Your task to perform on an android device: change the clock display to digital Image 0: 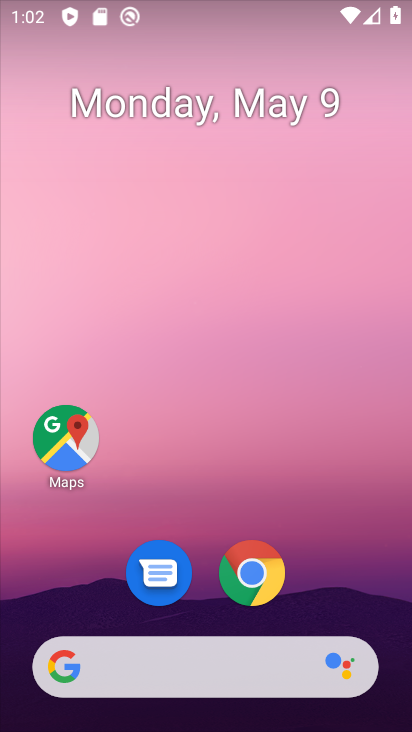
Step 0: click (162, 142)
Your task to perform on an android device: change the clock display to digital Image 1: 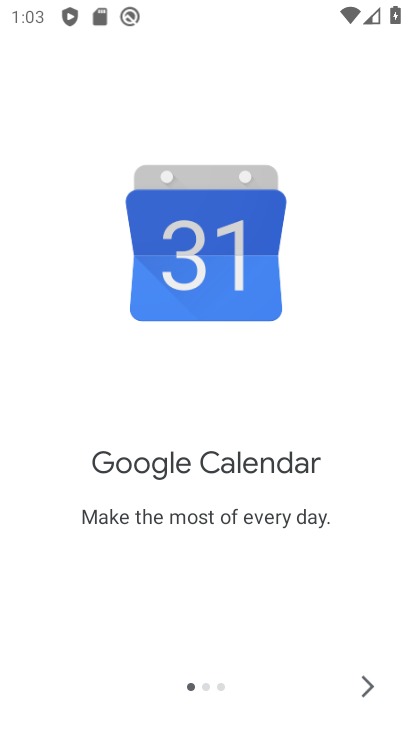
Step 1: click (376, 674)
Your task to perform on an android device: change the clock display to digital Image 2: 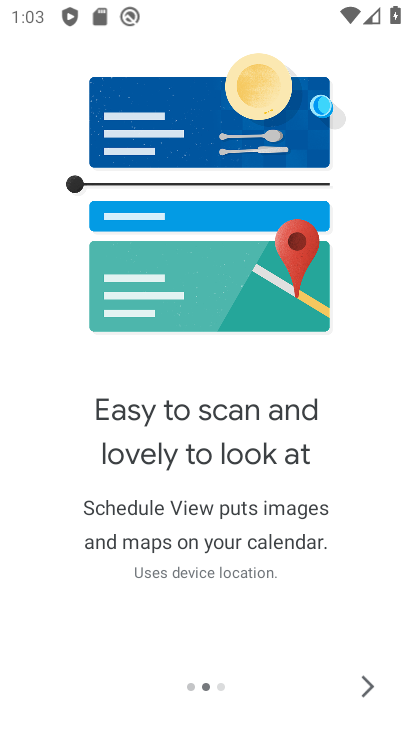
Step 2: click (374, 679)
Your task to perform on an android device: change the clock display to digital Image 3: 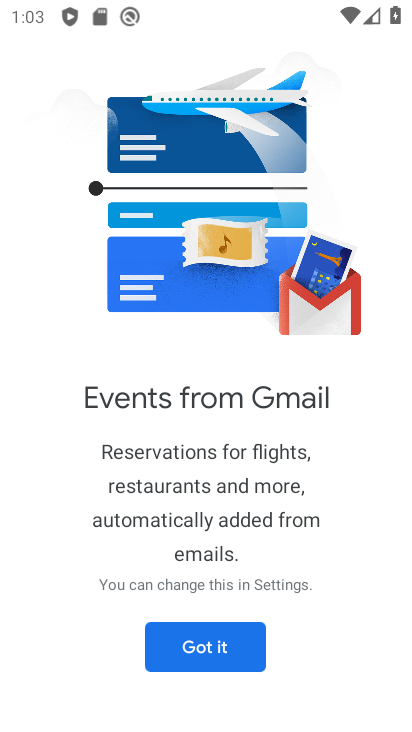
Step 3: click (374, 680)
Your task to perform on an android device: change the clock display to digital Image 4: 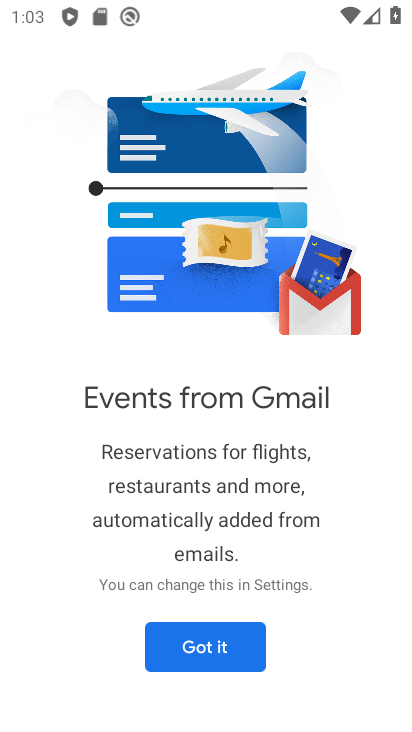
Step 4: click (247, 652)
Your task to perform on an android device: change the clock display to digital Image 5: 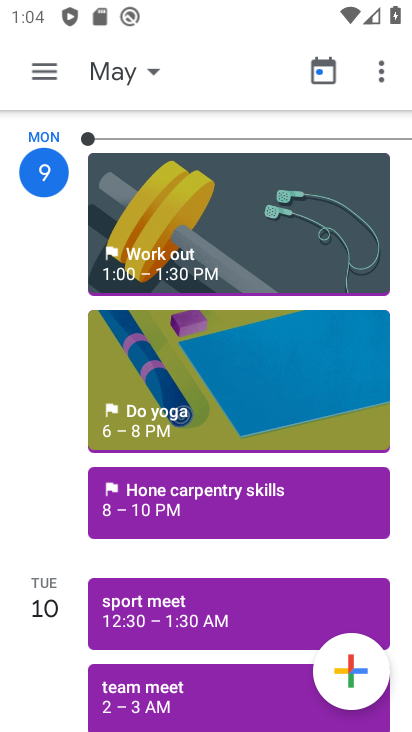
Step 5: press home button
Your task to perform on an android device: change the clock display to digital Image 6: 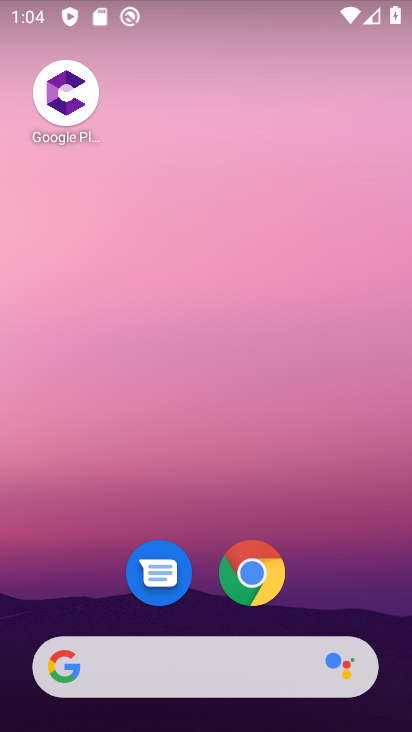
Step 6: drag from (263, 586) to (366, 130)
Your task to perform on an android device: change the clock display to digital Image 7: 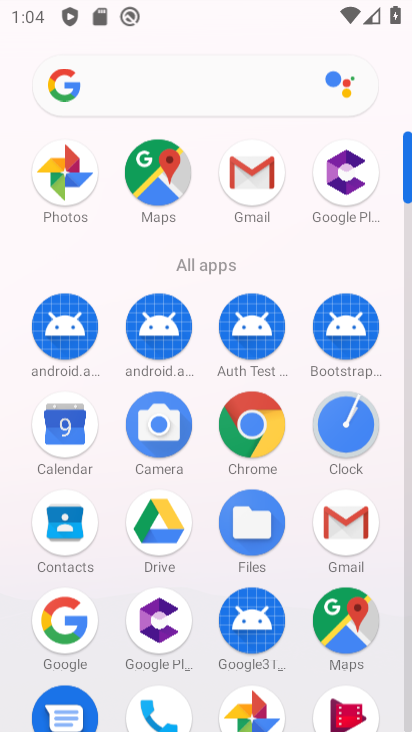
Step 7: drag from (343, 598) to (396, 333)
Your task to perform on an android device: change the clock display to digital Image 8: 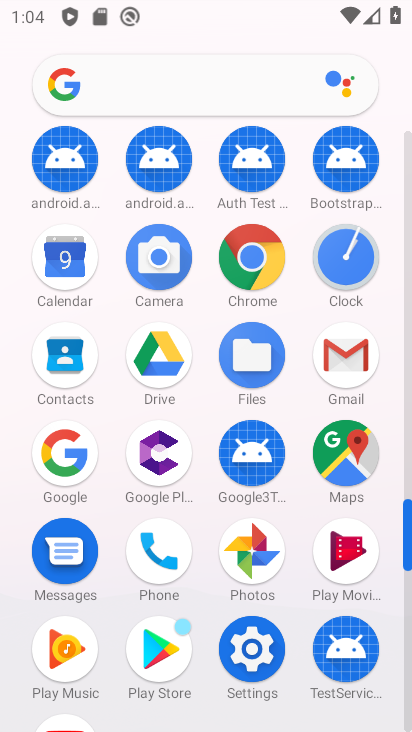
Step 8: click (338, 274)
Your task to perform on an android device: change the clock display to digital Image 9: 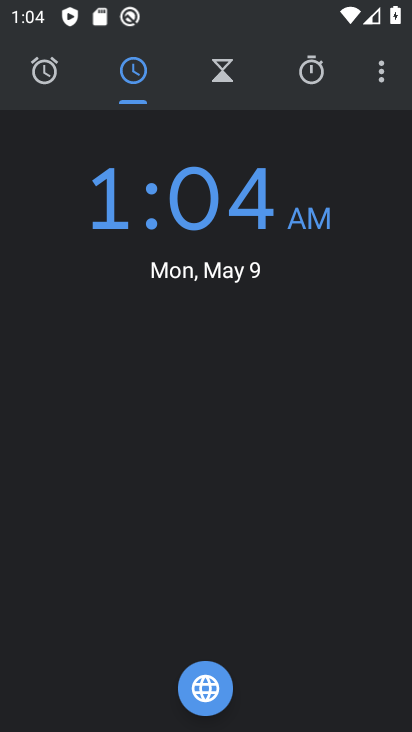
Step 9: drag from (35, 199) to (79, 731)
Your task to perform on an android device: change the clock display to digital Image 10: 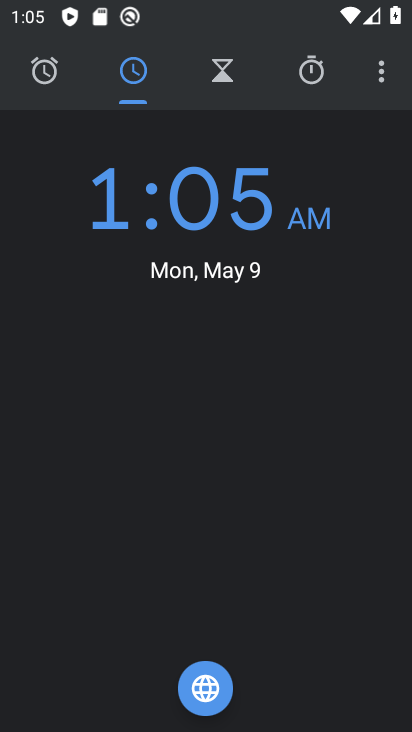
Step 10: click (376, 69)
Your task to perform on an android device: change the clock display to digital Image 11: 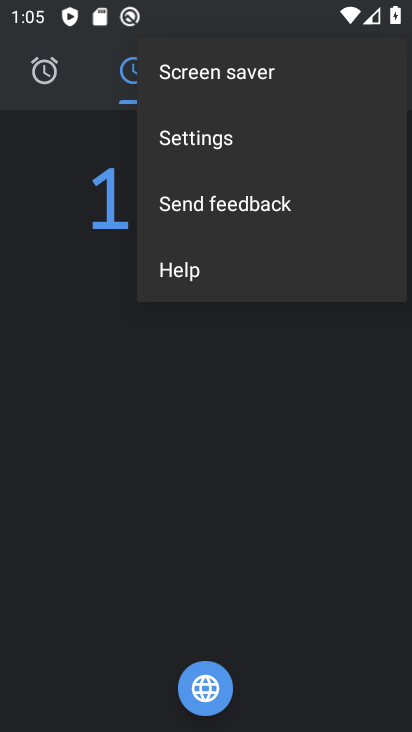
Step 11: click (231, 128)
Your task to perform on an android device: change the clock display to digital Image 12: 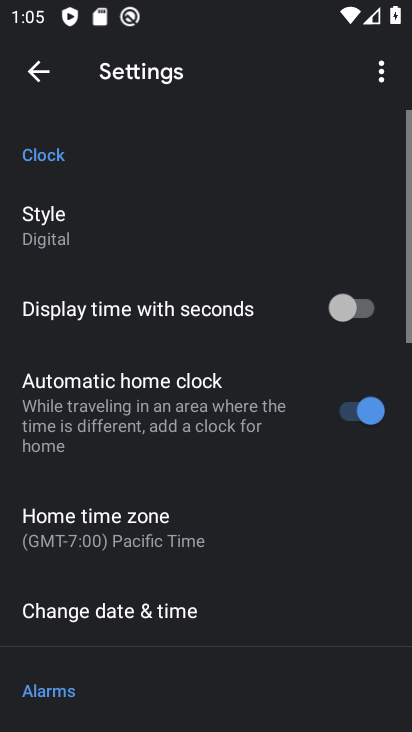
Step 12: click (74, 223)
Your task to perform on an android device: change the clock display to digital Image 13: 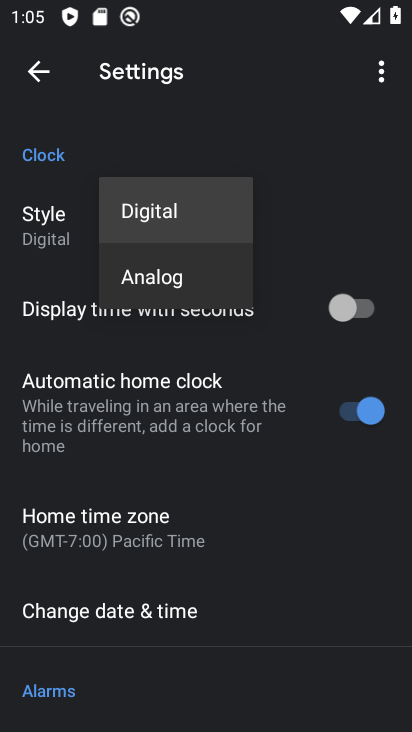
Step 13: task complete